Your task to perform on an android device: Open Chrome and go to settings Image 0: 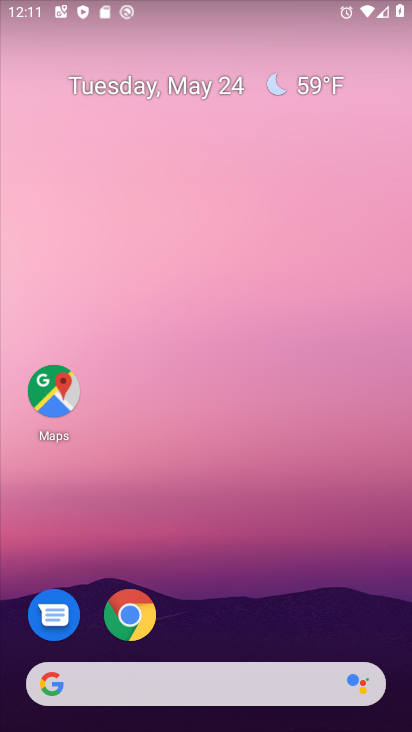
Step 0: drag from (254, 532) to (250, 11)
Your task to perform on an android device: Open Chrome and go to settings Image 1: 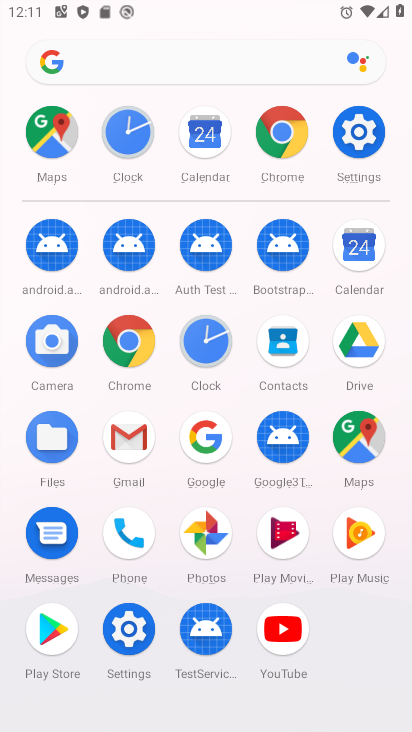
Step 1: click (275, 126)
Your task to perform on an android device: Open Chrome and go to settings Image 2: 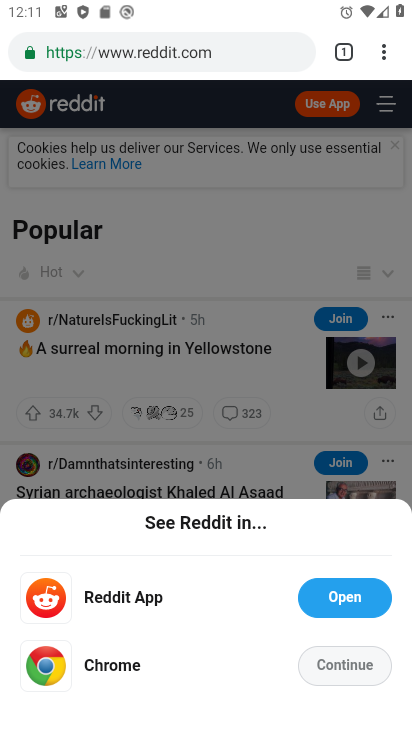
Step 2: task complete